Your task to perform on an android device: delete a single message in the gmail app Image 0: 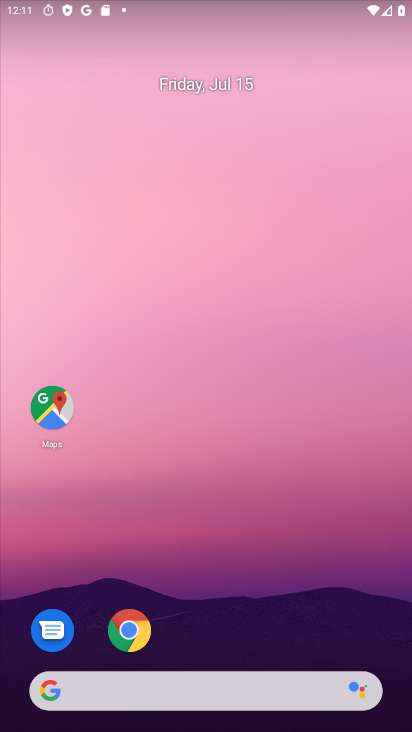
Step 0: drag from (175, 610) to (174, 218)
Your task to perform on an android device: delete a single message in the gmail app Image 1: 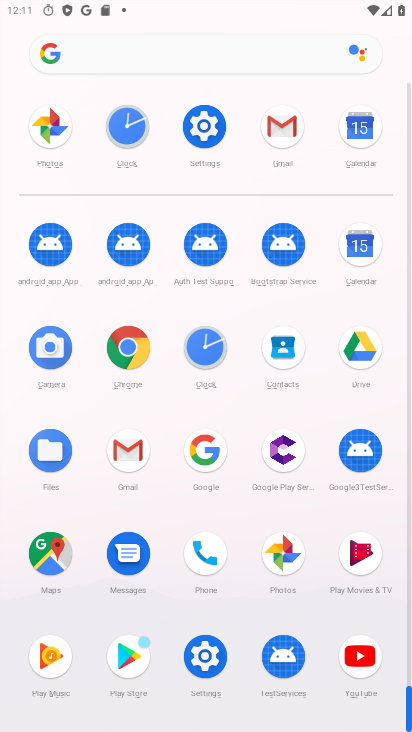
Step 1: click (126, 441)
Your task to perform on an android device: delete a single message in the gmail app Image 2: 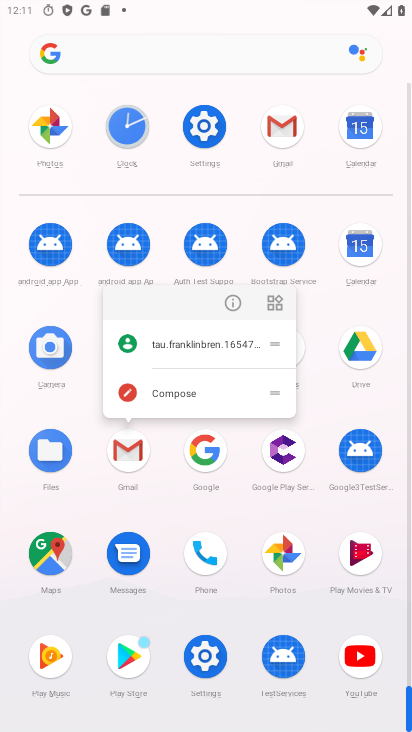
Step 2: click (232, 293)
Your task to perform on an android device: delete a single message in the gmail app Image 3: 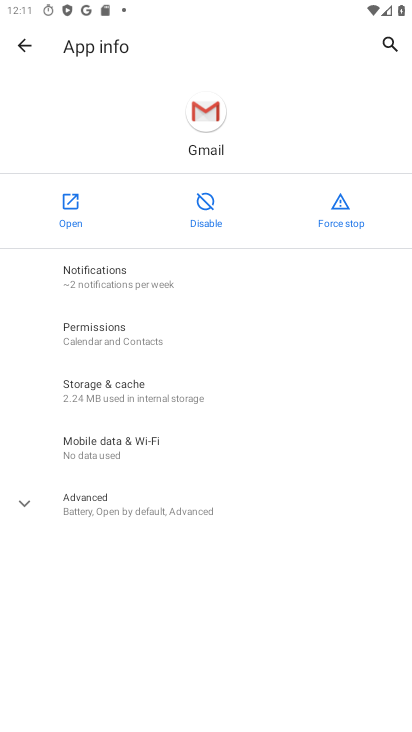
Step 3: click (65, 216)
Your task to perform on an android device: delete a single message in the gmail app Image 4: 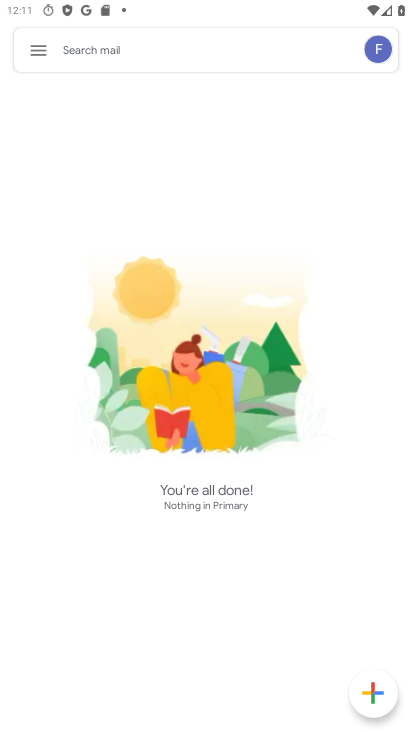
Step 4: click (31, 60)
Your task to perform on an android device: delete a single message in the gmail app Image 5: 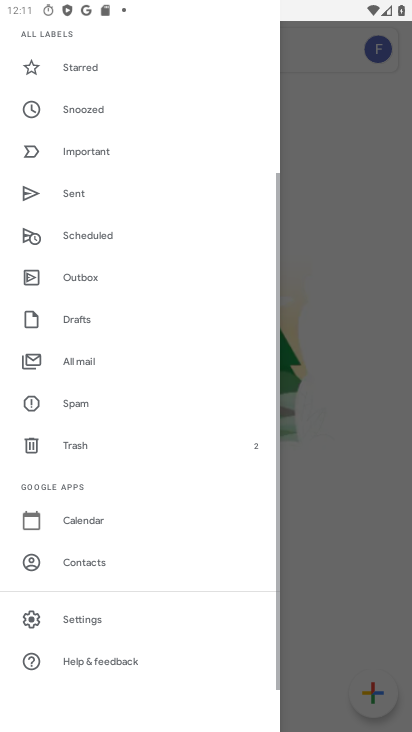
Step 5: click (350, 209)
Your task to perform on an android device: delete a single message in the gmail app Image 6: 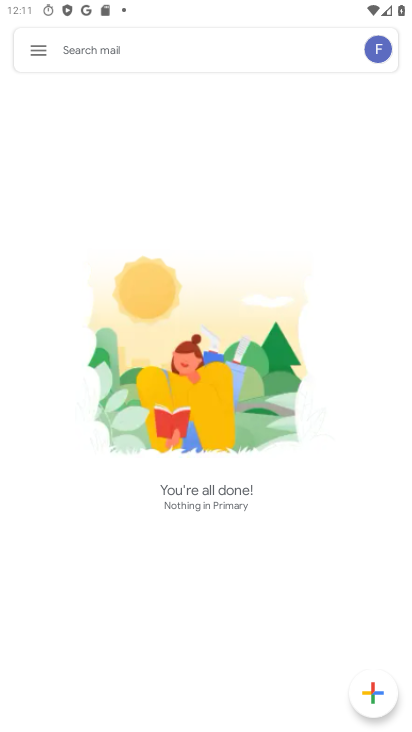
Step 6: task complete